Your task to perform on an android device: choose inbox layout in the gmail app Image 0: 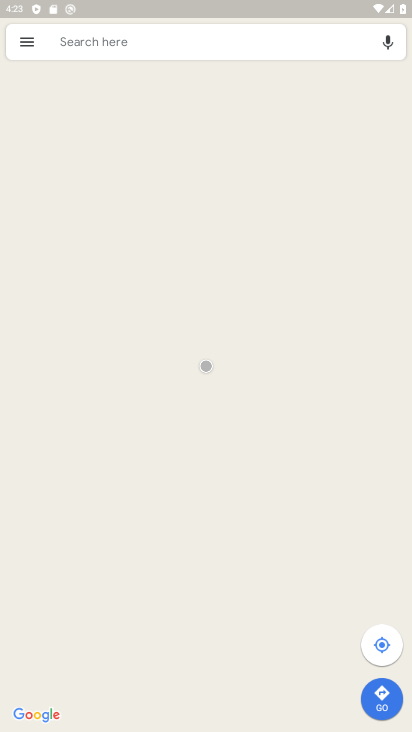
Step 0: press home button
Your task to perform on an android device: choose inbox layout in the gmail app Image 1: 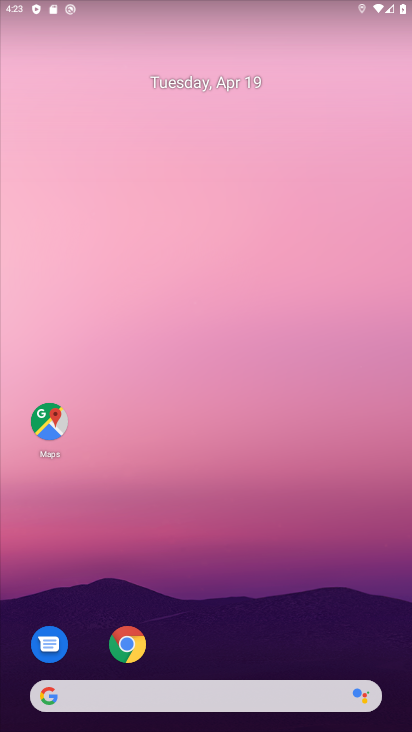
Step 1: drag from (157, 586) to (191, 208)
Your task to perform on an android device: choose inbox layout in the gmail app Image 2: 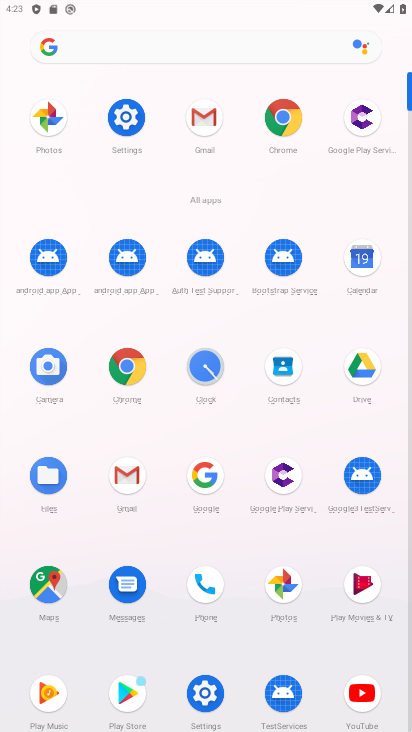
Step 2: click (135, 485)
Your task to perform on an android device: choose inbox layout in the gmail app Image 3: 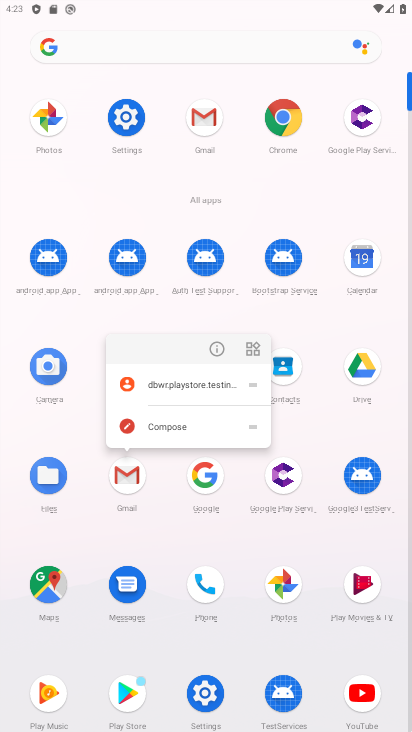
Step 3: click (122, 477)
Your task to perform on an android device: choose inbox layout in the gmail app Image 4: 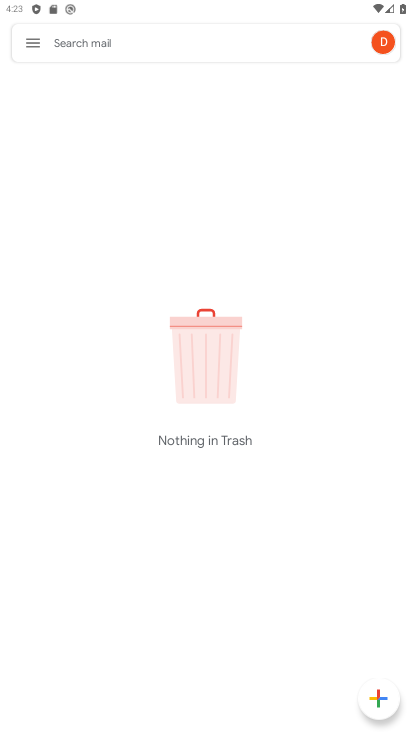
Step 4: click (34, 41)
Your task to perform on an android device: choose inbox layout in the gmail app Image 5: 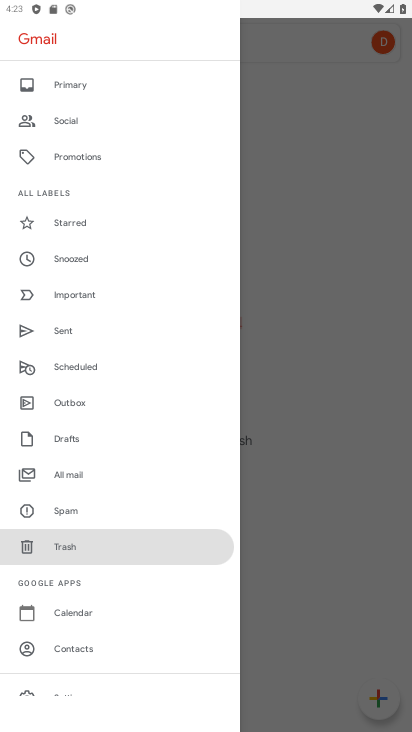
Step 5: drag from (95, 642) to (108, 410)
Your task to perform on an android device: choose inbox layout in the gmail app Image 6: 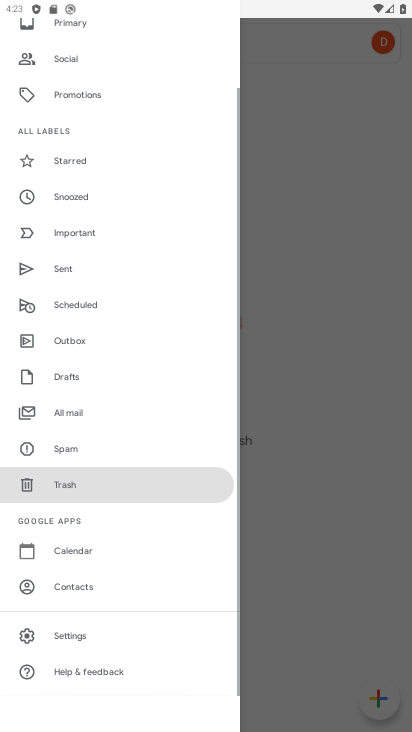
Step 6: click (66, 629)
Your task to perform on an android device: choose inbox layout in the gmail app Image 7: 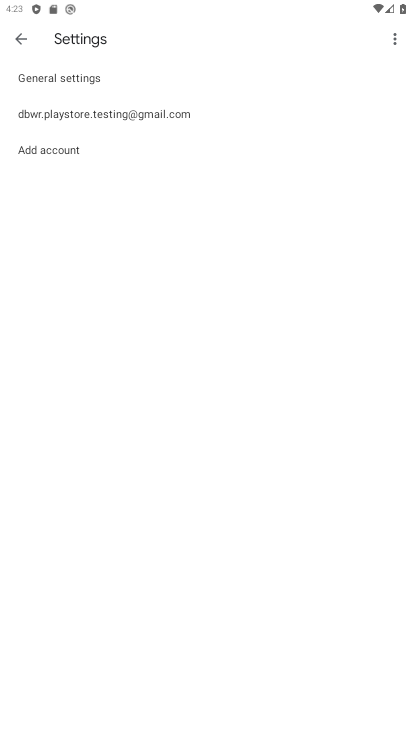
Step 7: click (115, 117)
Your task to perform on an android device: choose inbox layout in the gmail app Image 8: 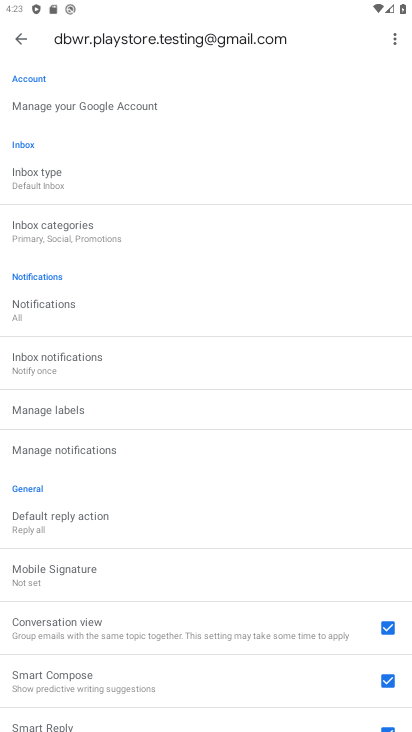
Step 8: click (74, 180)
Your task to perform on an android device: choose inbox layout in the gmail app Image 9: 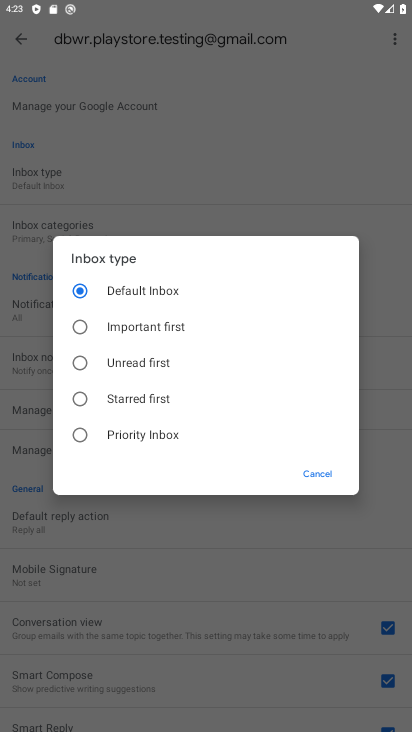
Step 9: task complete